Your task to perform on an android device: Open the stopwatch Image 0: 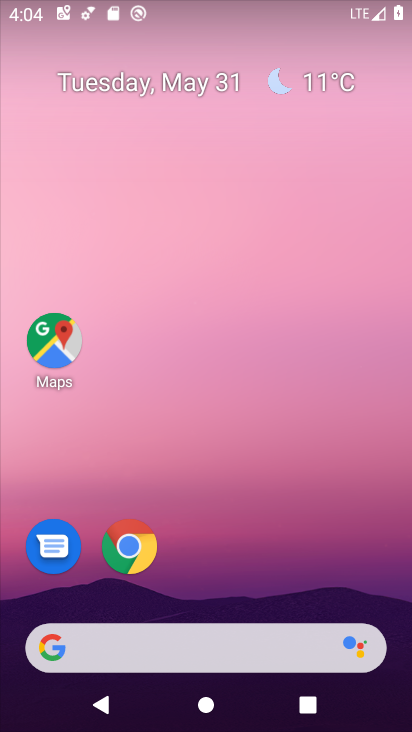
Step 0: drag from (300, 487) to (123, 27)
Your task to perform on an android device: Open the stopwatch Image 1: 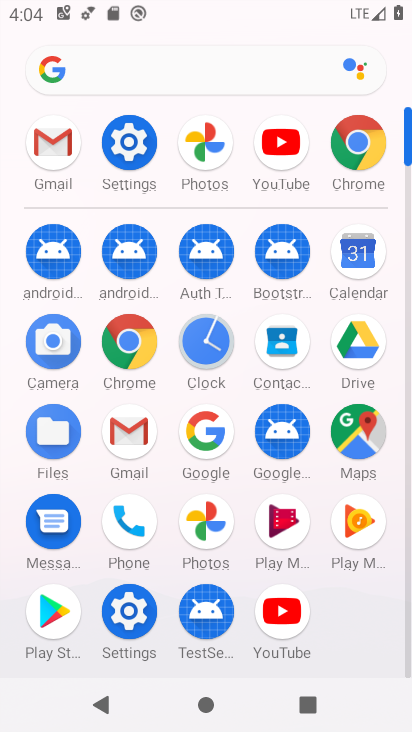
Step 1: click (212, 348)
Your task to perform on an android device: Open the stopwatch Image 2: 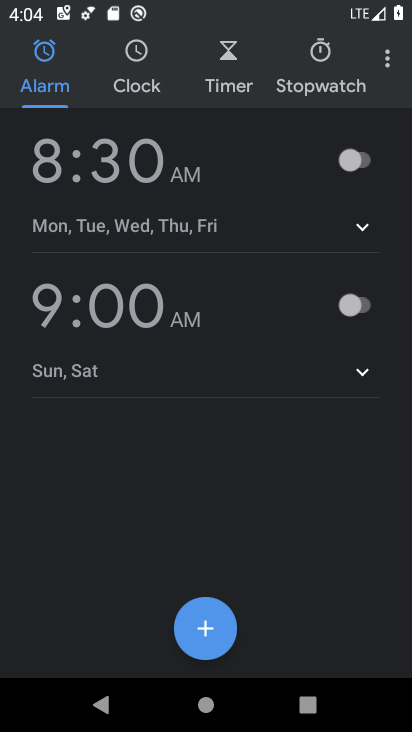
Step 2: click (327, 58)
Your task to perform on an android device: Open the stopwatch Image 3: 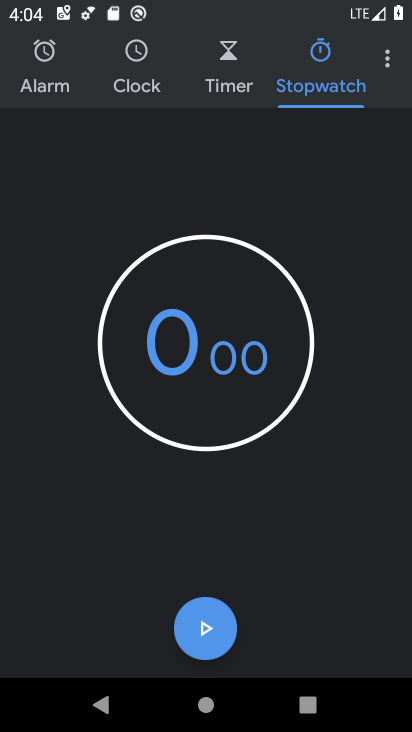
Step 3: task complete